Your task to perform on an android device: manage bookmarks in the chrome app Image 0: 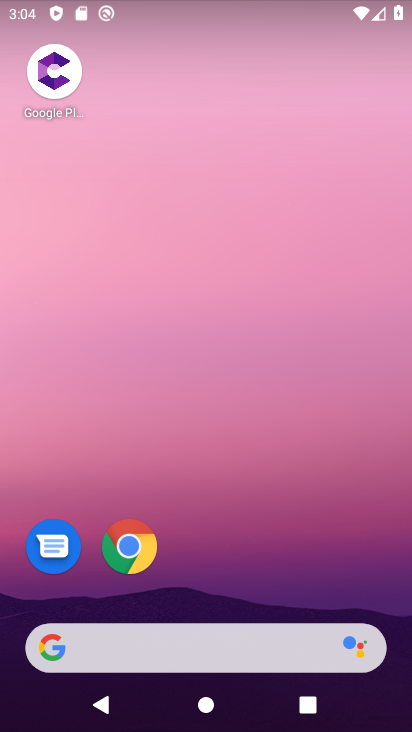
Step 0: click (128, 546)
Your task to perform on an android device: manage bookmarks in the chrome app Image 1: 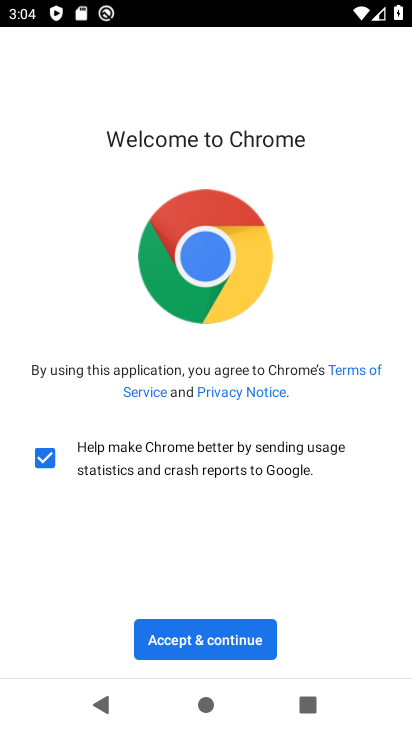
Step 1: click (171, 639)
Your task to perform on an android device: manage bookmarks in the chrome app Image 2: 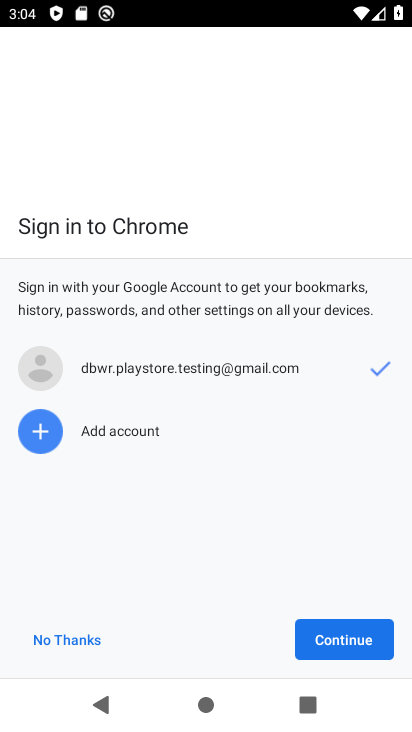
Step 2: click (345, 640)
Your task to perform on an android device: manage bookmarks in the chrome app Image 3: 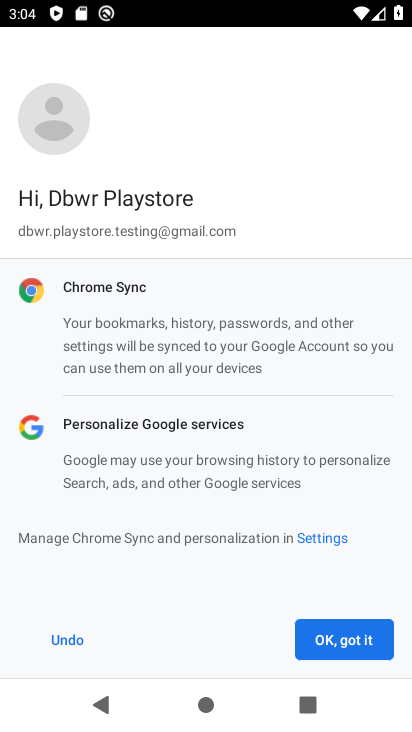
Step 3: click (345, 640)
Your task to perform on an android device: manage bookmarks in the chrome app Image 4: 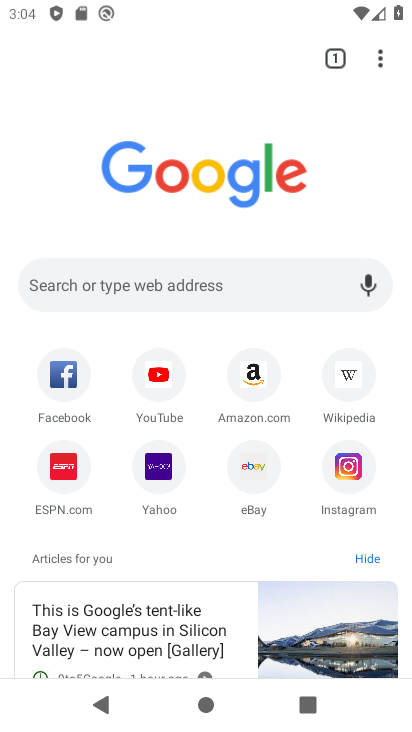
Step 4: click (379, 55)
Your task to perform on an android device: manage bookmarks in the chrome app Image 5: 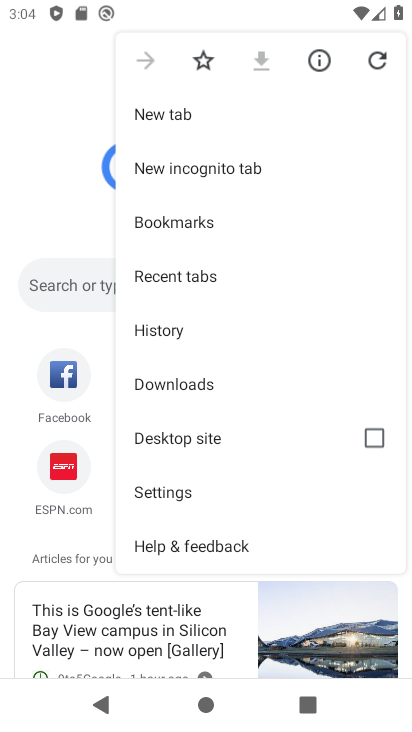
Step 5: click (185, 225)
Your task to perform on an android device: manage bookmarks in the chrome app Image 6: 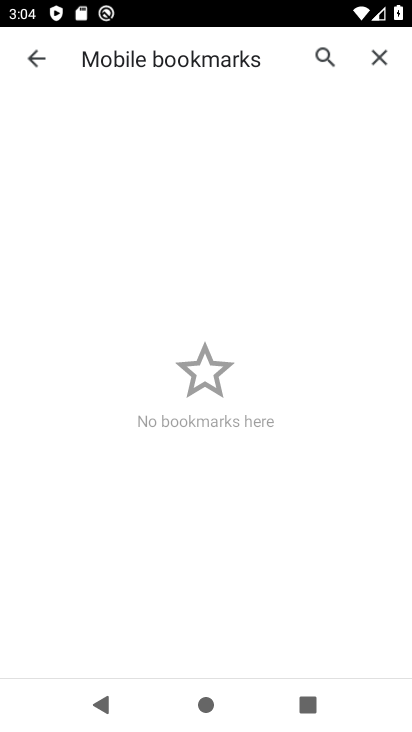
Step 6: task complete